Your task to perform on an android device: Open calendar and show me the first week of next month Image 0: 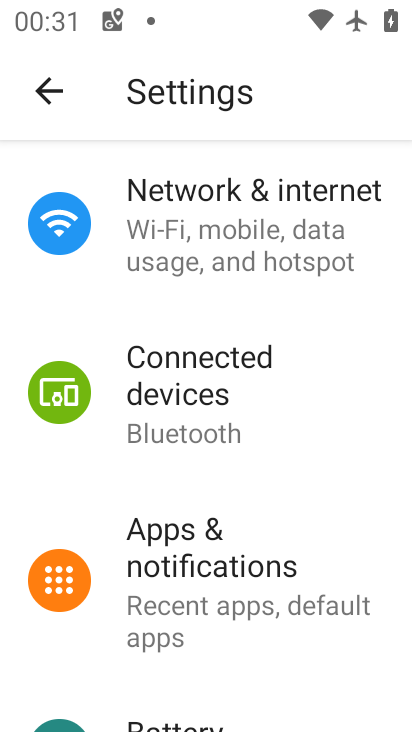
Step 0: press home button
Your task to perform on an android device: Open calendar and show me the first week of next month Image 1: 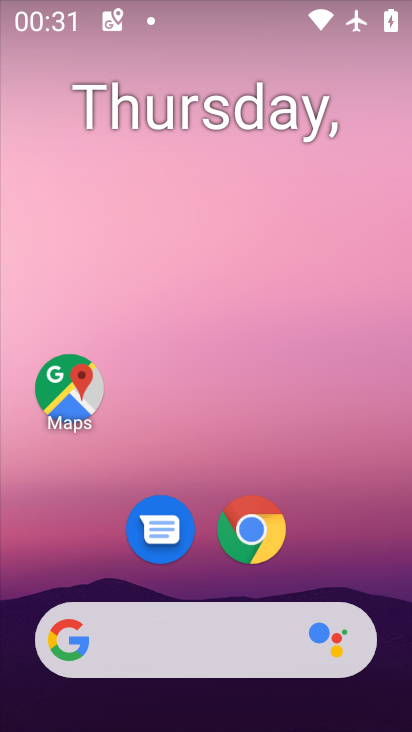
Step 1: drag from (395, 612) to (339, 89)
Your task to perform on an android device: Open calendar and show me the first week of next month Image 2: 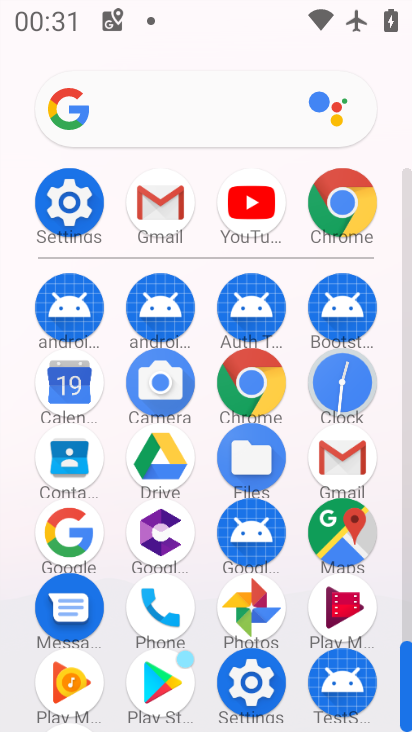
Step 2: click (70, 385)
Your task to perform on an android device: Open calendar and show me the first week of next month Image 3: 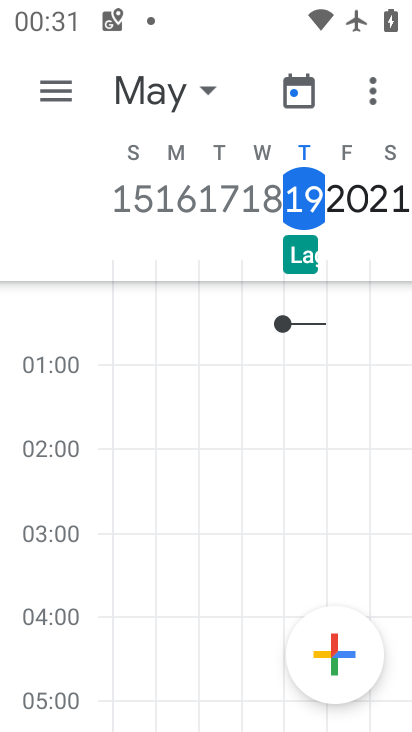
Step 3: click (201, 94)
Your task to perform on an android device: Open calendar and show me the first week of next month Image 4: 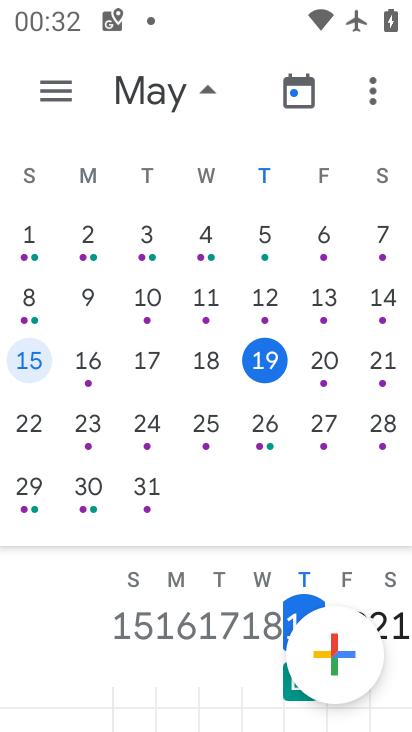
Step 4: task complete